Your task to perform on an android device: change the clock display to analog Image 0: 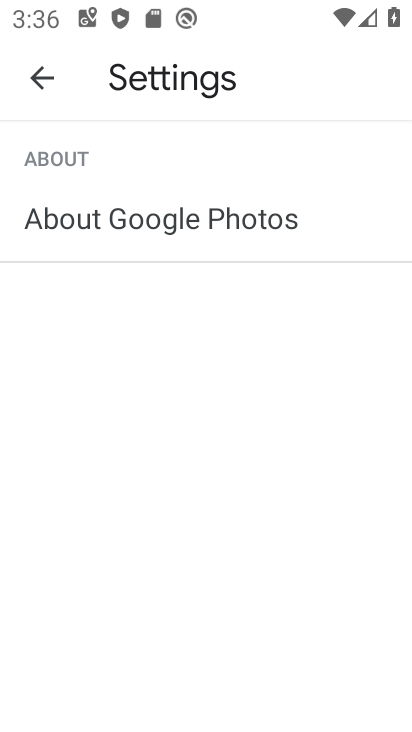
Step 0: press home button
Your task to perform on an android device: change the clock display to analog Image 1: 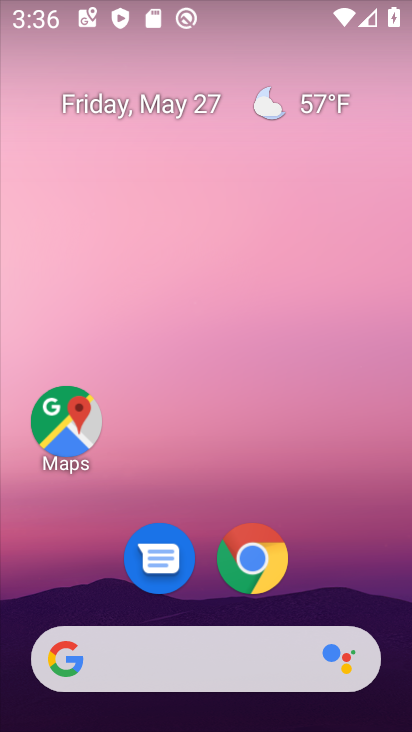
Step 1: drag from (349, 587) to (298, 167)
Your task to perform on an android device: change the clock display to analog Image 2: 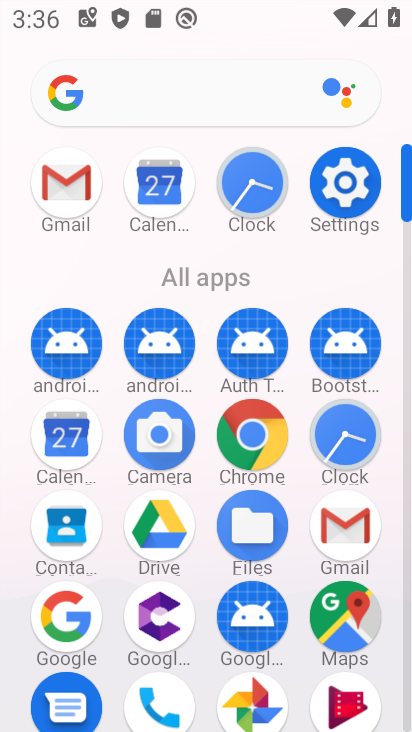
Step 2: click (241, 187)
Your task to perform on an android device: change the clock display to analog Image 3: 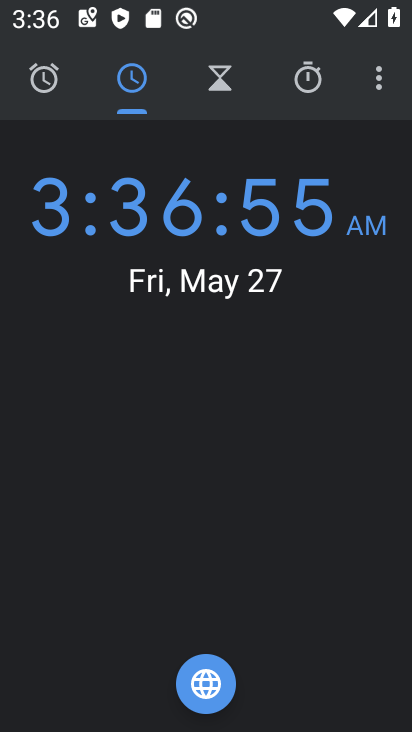
Step 3: click (364, 102)
Your task to perform on an android device: change the clock display to analog Image 4: 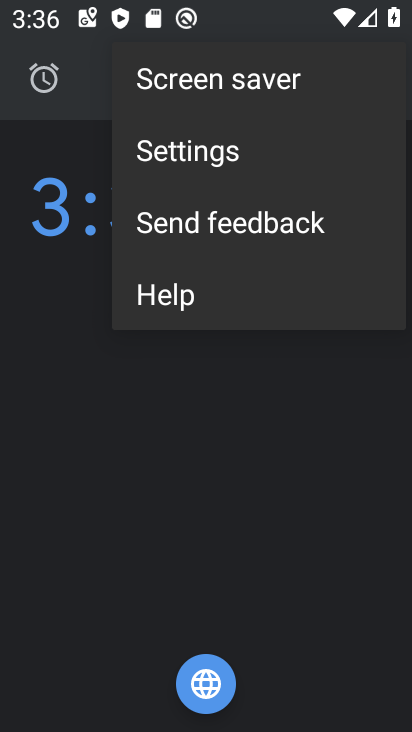
Step 4: click (230, 145)
Your task to perform on an android device: change the clock display to analog Image 5: 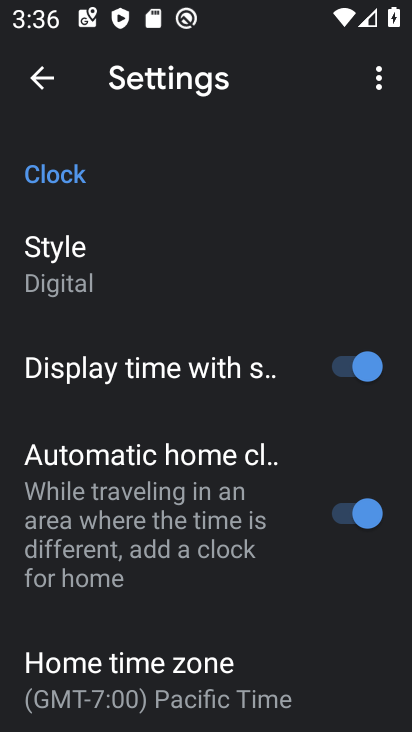
Step 5: click (165, 282)
Your task to perform on an android device: change the clock display to analog Image 6: 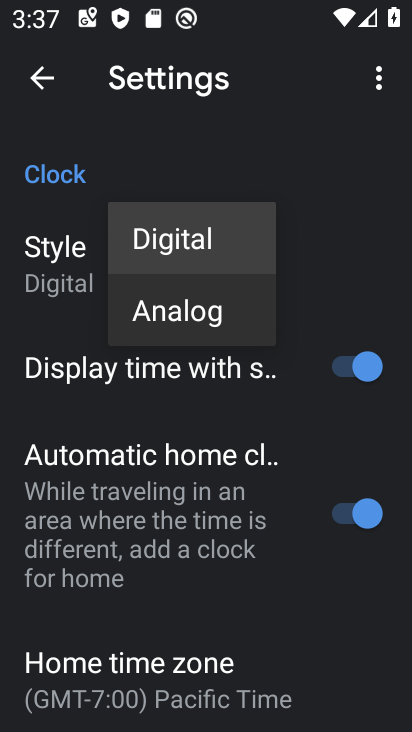
Step 6: click (173, 311)
Your task to perform on an android device: change the clock display to analog Image 7: 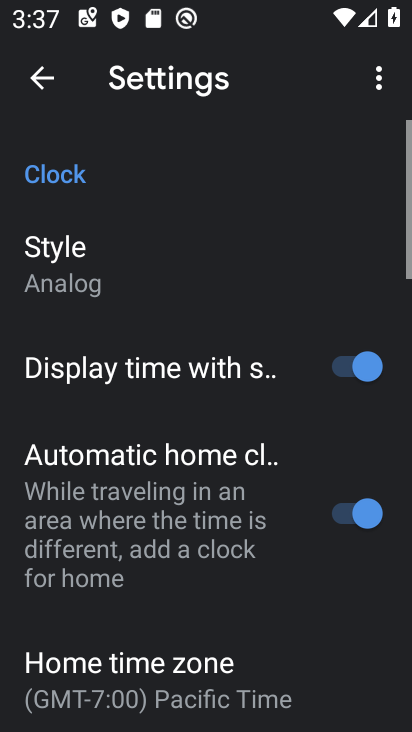
Step 7: task complete